Your task to perform on an android device: View the shopping cart on amazon.com. Search for usb-a on amazon.com, select the first entry, and add it to the cart. Image 0: 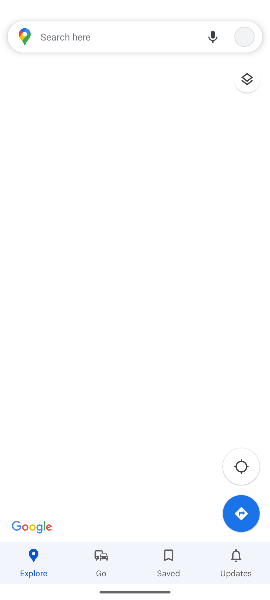
Step 0: press home button
Your task to perform on an android device: View the shopping cart on amazon.com. Search for usb-a on amazon.com, select the first entry, and add it to the cart. Image 1: 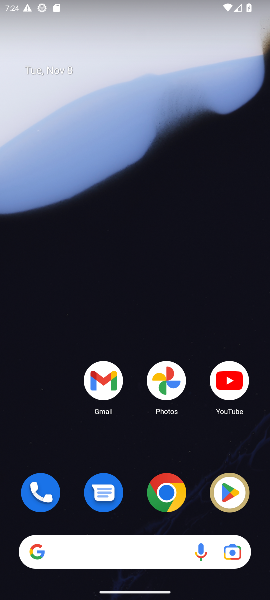
Step 1: click (172, 500)
Your task to perform on an android device: View the shopping cart on amazon.com. Search for usb-a on amazon.com, select the first entry, and add it to the cart. Image 2: 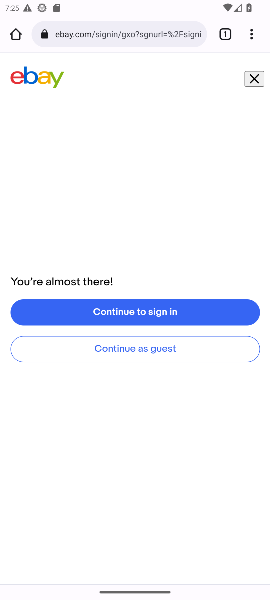
Step 2: click (127, 30)
Your task to perform on an android device: View the shopping cart on amazon.com. Search for usb-a on amazon.com, select the first entry, and add it to the cart. Image 3: 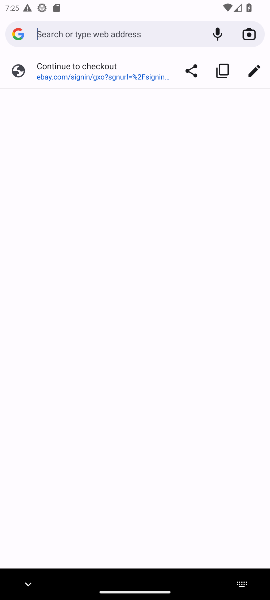
Step 3: type "amazon.com"
Your task to perform on an android device: View the shopping cart on amazon.com. Search for usb-a on amazon.com, select the first entry, and add it to the cart. Image 4: 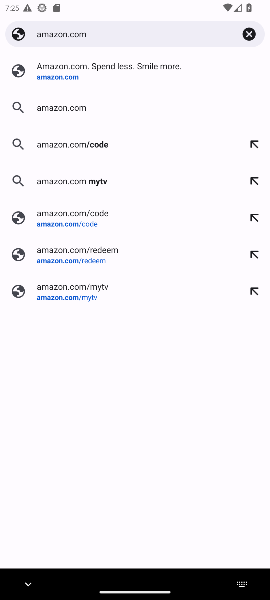
Step 4: click (76, 111)
Your task to perform on an android device: View the shopping cart on amazon.com. Search for usb-a on amazon.com, select the first entry, and add it to the cart. Image 5: 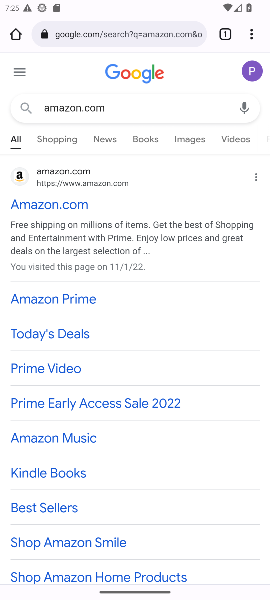
Step 5: click (86, 180)
Your task to perform on an android device: View the shopping cart on amazon.com. Search for usb-a on amazon.com, select the first entry, and add it to the cart. Image 6: 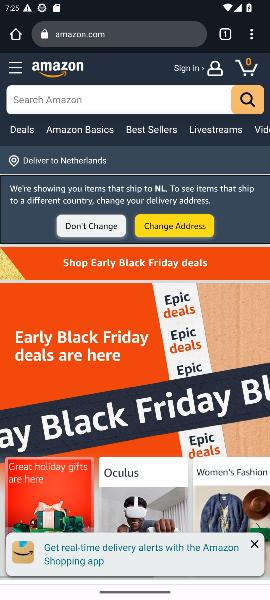
Step 6: click (199, 100)
Your task to perform on an android device: View the shopping cart on amazon.com. Search for usb-a on amazon.com, select the first entry, and add it to the cart. Image 7: 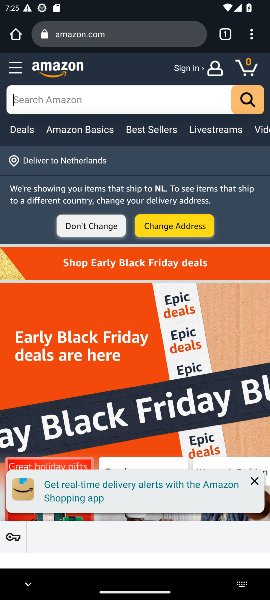
Step 7: type " usb-a"
Your task to perform on an android device: View the shopping cart on amazon.com. Search for usb-a on amazon.com, select the first entry, and add it to the cart. Image 8: 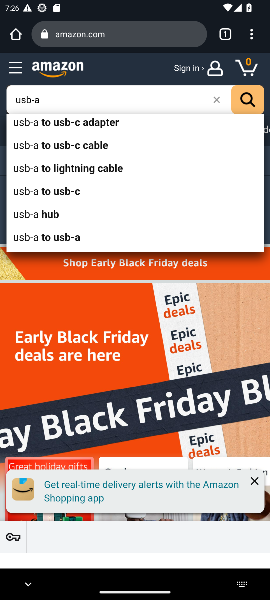
Step 8: click (53, 215)
Your task to perform on an android device: View the shopping cart on amazon.com. Search for usb-a on amazon.com, select the first entry, and add it to the cart. Image 9: 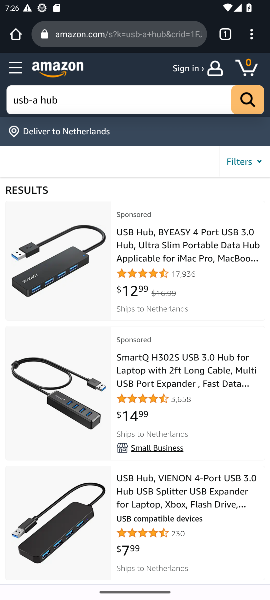
Step 9: drag from (70, 393) to (84, 205)
Your task to perform on an android device: View the shopping cart on amazon.com. Search for usb-a on amazon.com, select the first entry, and add it to the cart. Image 10: 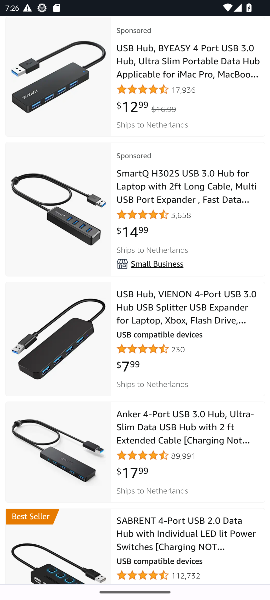
Step 10: drag from (55, 337) to (70, 207)
Your task to perform on an android device: View the shopping cart on amazon.com. Search for usb-a on amazon.com, select the first entry, and add it to the cart. Image 11: 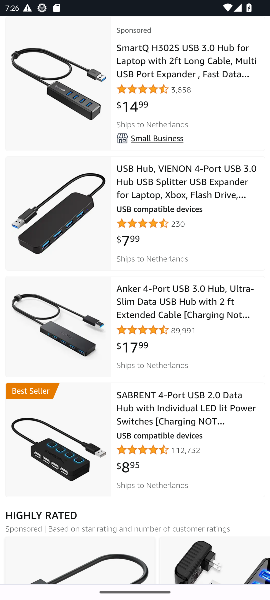
Step 11: click (45, 310)
Your task to perform on an android device: View the shopping cart on amazon.com. Search for usb-a on amazon.com, select the first entry, and add it to the cart. Image 12: 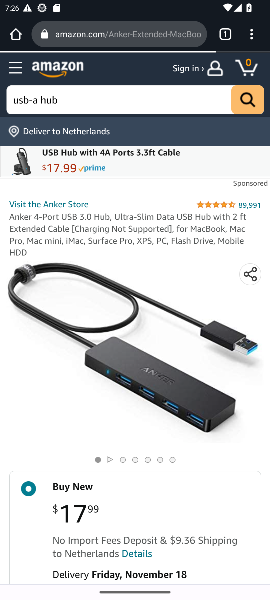
Step 12: drag from (189, 441) to (203, 161)
Your task to perform on an android device: View the shopping cart on amazon.com. Search for usb-a on amazon.com, select the first entry, and add it to the cart. Image 13: 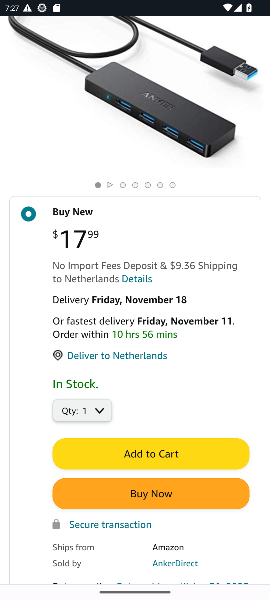
Step 13: click (127, 447)
Your task to perform on an android device: View the shopping cart on amazon.com. Search for usb-a on amazon.com, select the first entry, and add it to the cart. Image 14: 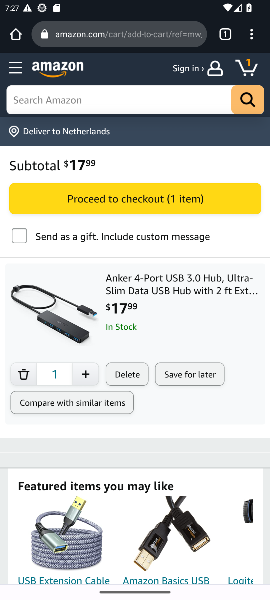
Step 14: task complete